Your task to perform on an android device: Go to wifi settings Image 0: 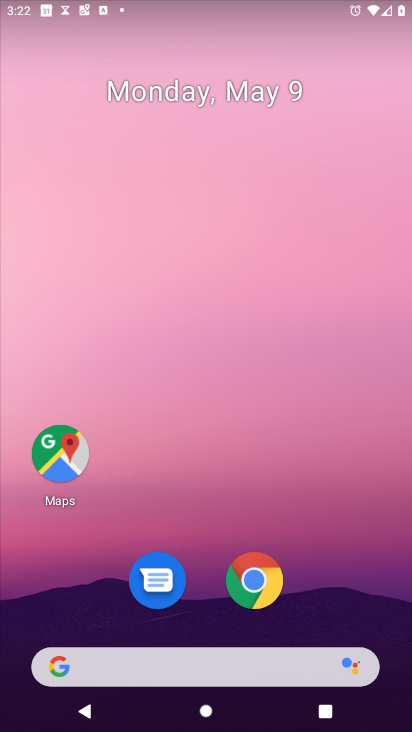
Step 0: drag from (339, 569) to (256, 20)
Your task to perform on an android device: Go to wifi settings Image 1: 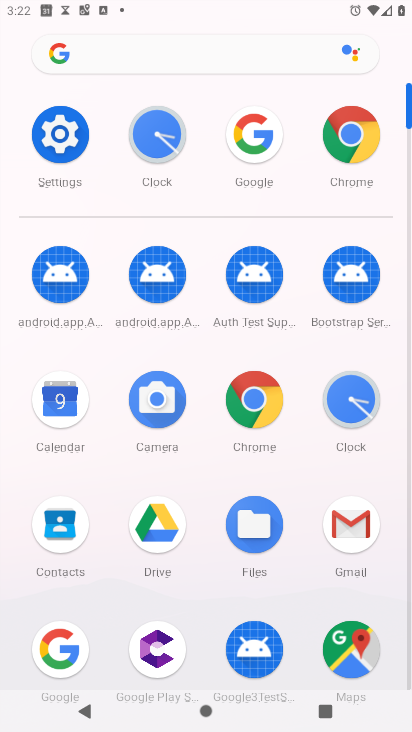
Step 1: click (50, 140)
Your task to perform on an android device: Go to wifi settings Image 2: 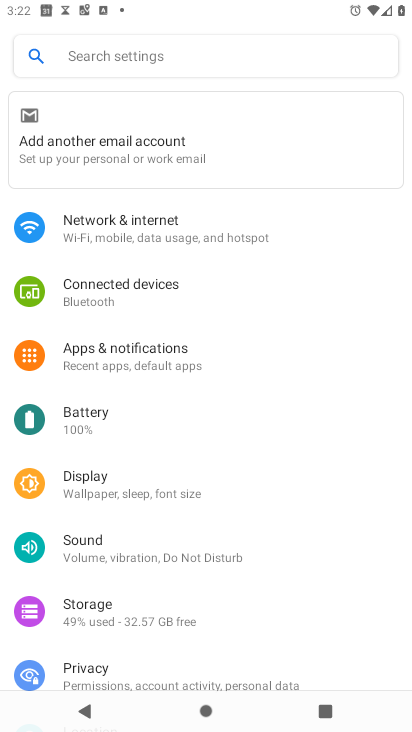
Step 2: click (136, 222)
Your task to perform on an android device: Go to wifi settings Image 3: 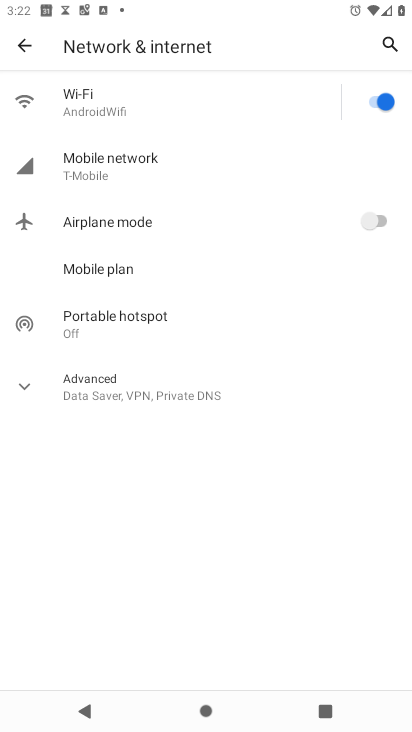
Step 3: click (115, 110)
Your task to perform on an android device: Go to wifi settings Image 4: 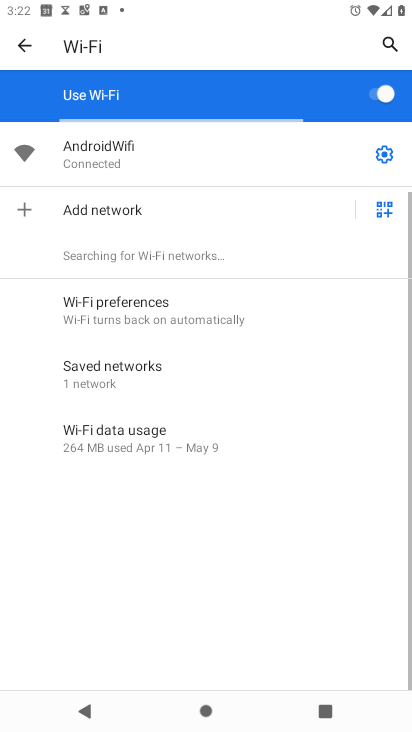
Step 4: task complete